Your task to perform on an android device: Open Chrome and go to settings Image 0: 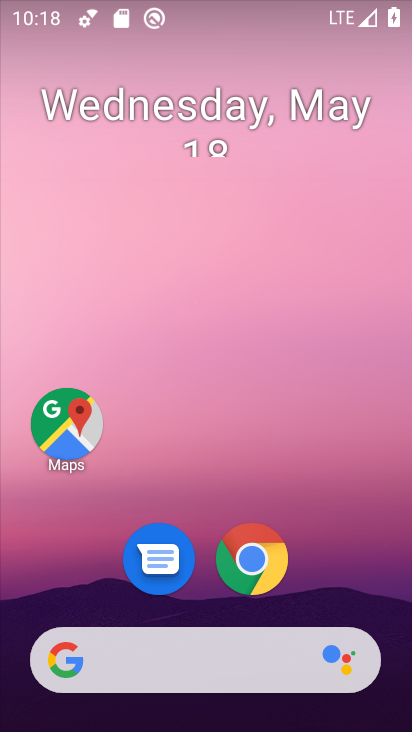
Step 0: click (259, 558)
Your task to perform on an android device: Open Chrome and go to settings Image 1: 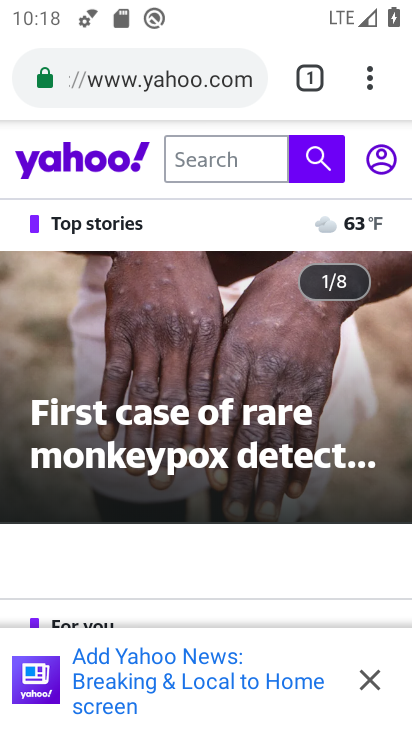
Step 1: click (376, 689)
Your task to perform on an android device: Open Chrome and go to settings Image 2: 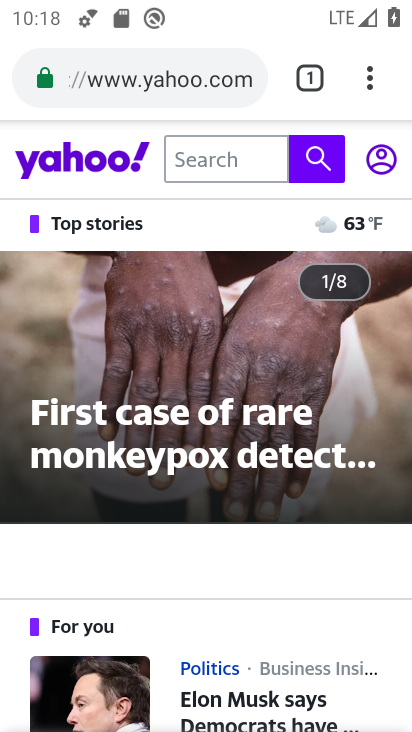
Step 2: click (370, 69)
Your task to perform on an android device: Open Chrome and go to settings Image 3: 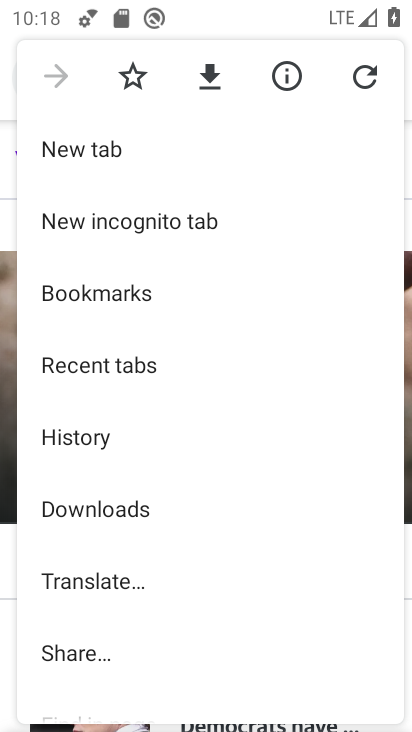
Step 3: drag from (140, 622) to (159, 361)
Your task to perform on an android device: Open Chrome and go to settings Image 4: 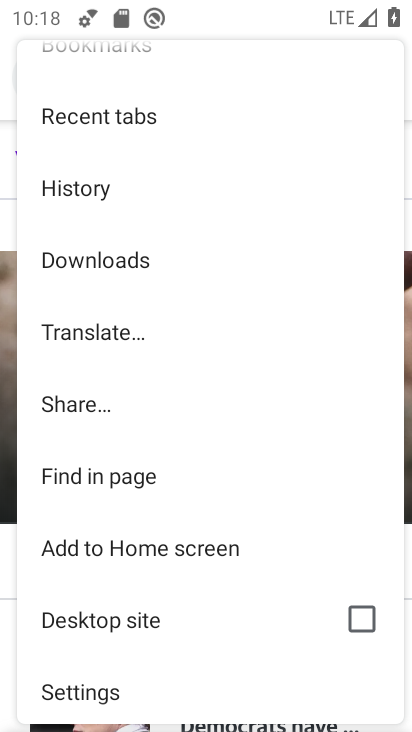
Step 4: drag from (109, 638) to (153, 418)
Your task to perform on an android device: Open Chrome and go to settings Image 5: 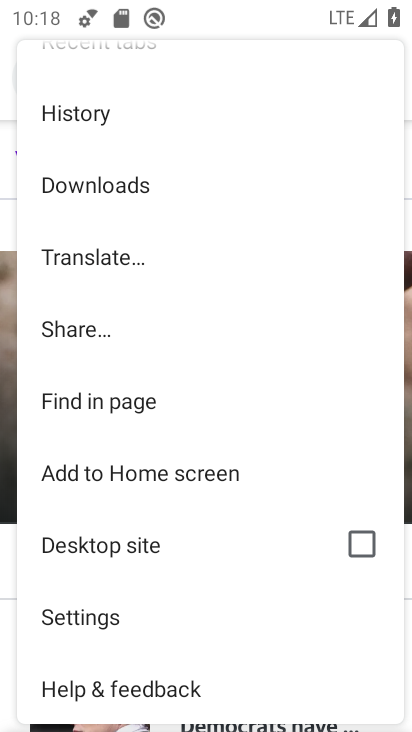
Step 5: click (108, 612)
Your task to perform on an android device: Open Chrome and go to settings Image 6: 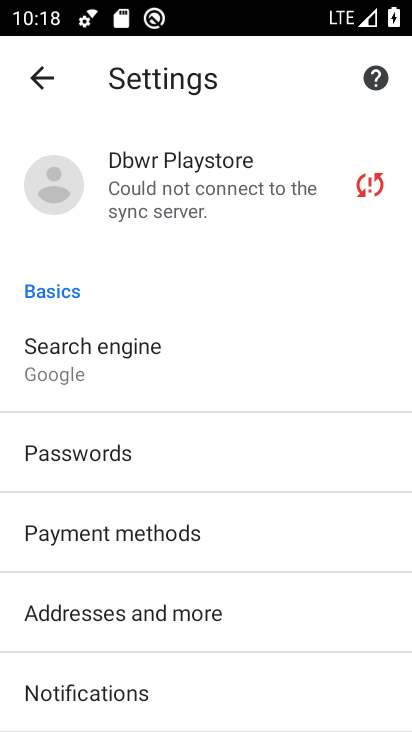
Step 6: task complete